Your task to perform on an android device: change text size in settings app Image 0: 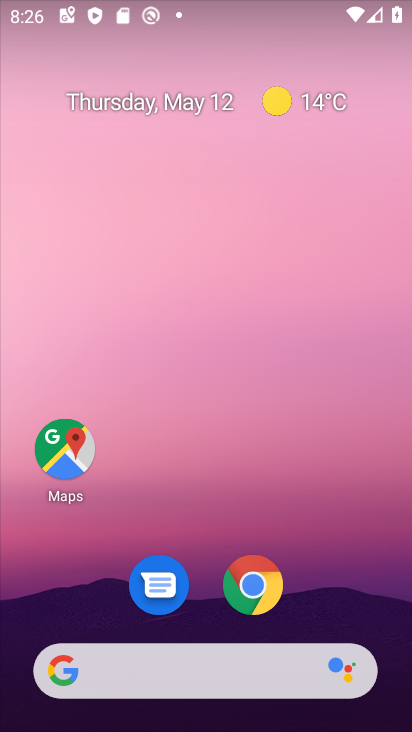
Step 0: drag from (260, 357) to (173, 27)
Your task to perform on an android device: change text size in settings app Image 1: 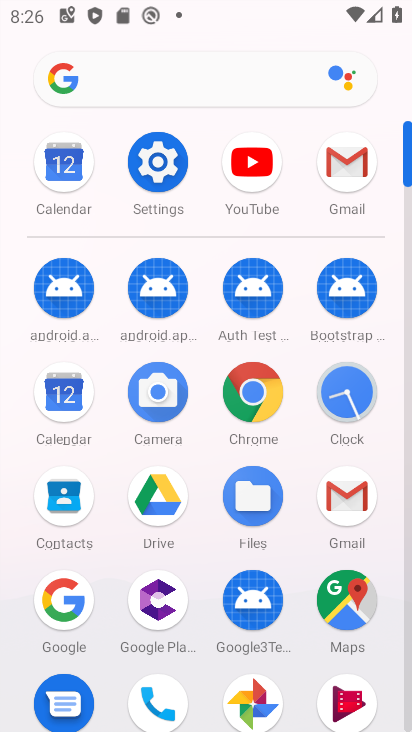
Step 1: click (158, 161)
Your task to perform on an android device: change text size in settings app Image 2: 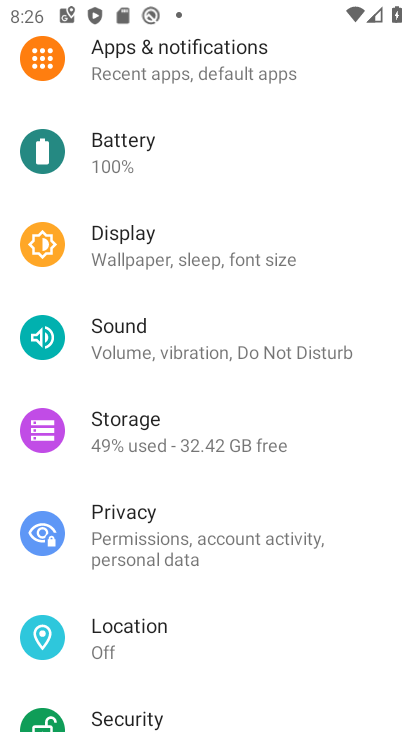
Step 2: click (188, 254)
Your task to perform on an android device: change text size in settings app Image 3: 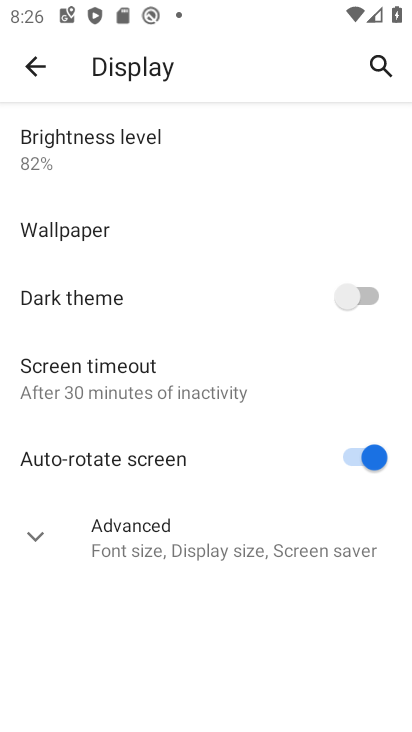
Step 3: click (40, 534)
Your task to perform on an android device: change text size in settings app Image 4: 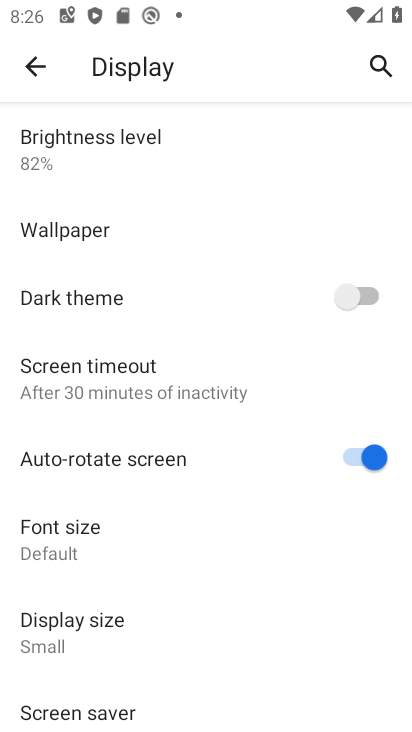
Step 4: click (92, 538)
Your task to perform on an android device: change text size in settings app Image 5: 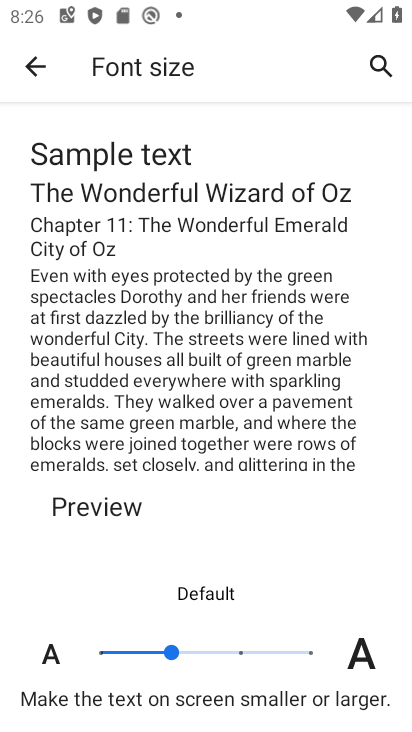
Step 5: task complete